Your task to perform on an android device: turn pop-ups on in chrome Image 0: 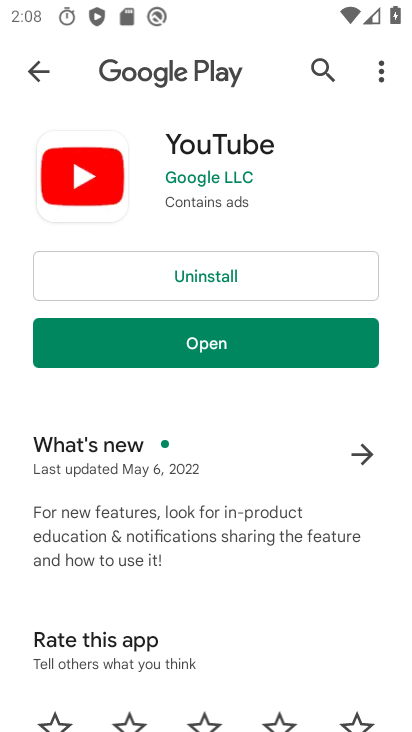
Step 0: press home button
Your task to perform on an android device: turn pop-ups on in chrome Image 1: 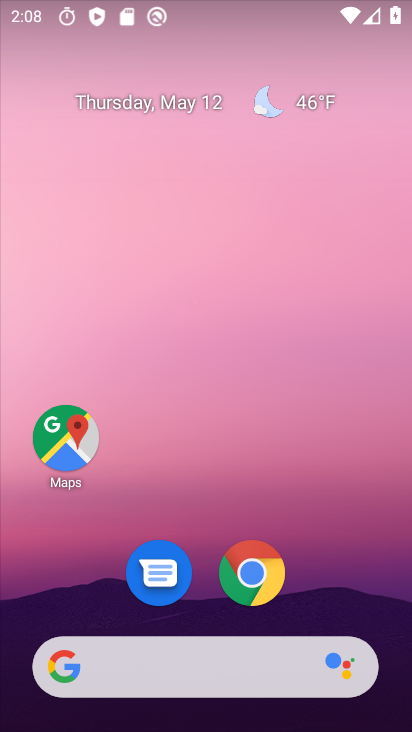
Step 1: click (256, 577)
Your task to perform on an android device: turn pop-ups on in chrome Image 2: 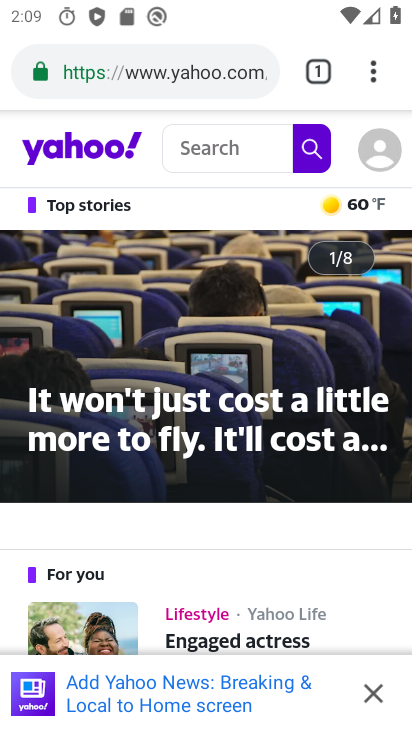
Step 2: click (386, 84)
Your task to perform on an android device: turn pop-ups on in chrome Image 3: 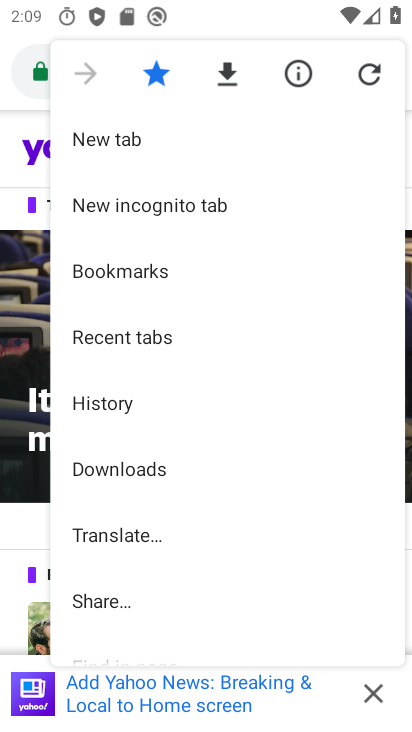
Step 3: drag from (240, 567) to (293, 270)
Your task to perform on an android device: turn pop-ups on in chrome Image 4: 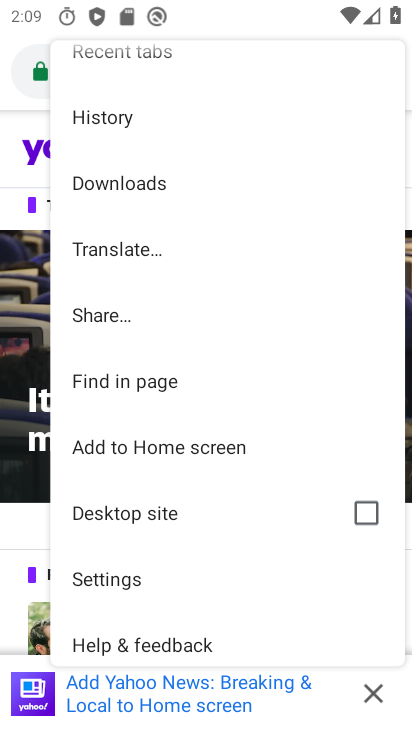
Step 4: click (186, 574)
Your task to perform on an android device: turn pop-ups on in chrome Image 5: 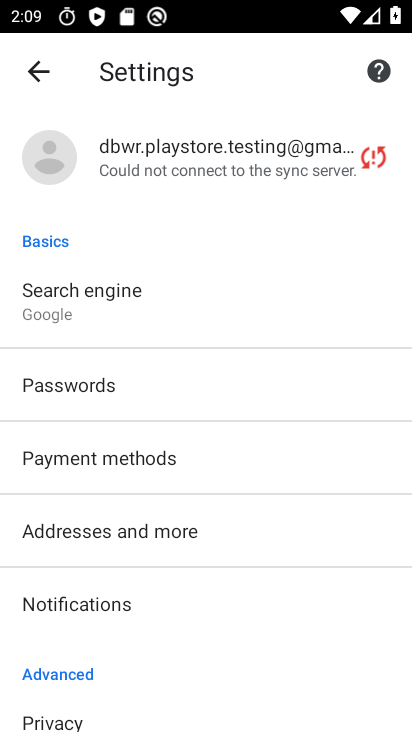
Step 5: drag from (133, 671) to (206, 296)
Your task to perform on an android device: turn pop-ups on in chrome Image 6: 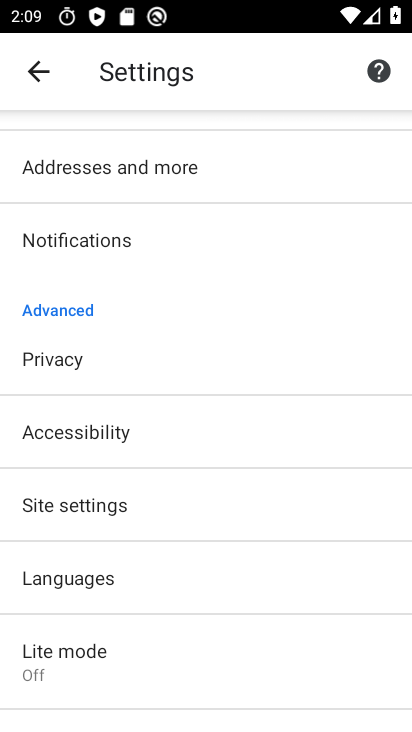
Step 6: drag from (160, 594) to (197, 329)
Your task to perform on an android device: turn pop-ups on in chrome Image 7: 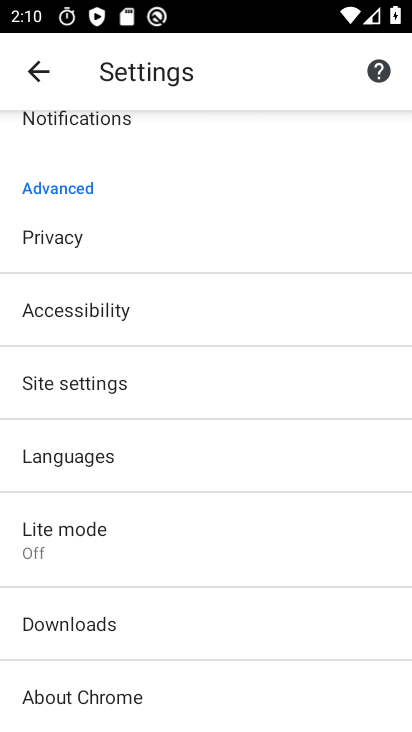
Step 7: drag from (252, 670) to (283, 141)
Your task to perform on an android device: turn pop-ups on in chrome Image 8: 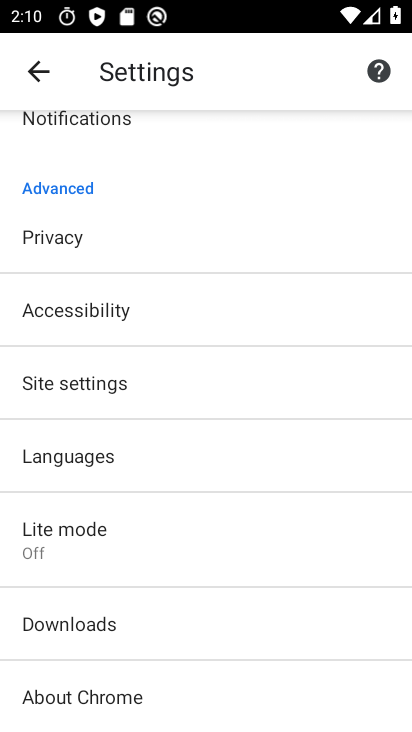
Step 8: drag from (160, 249) to (166, 531)
Your task to perform on an android device: turn pop-ups on in chrome Image 9: 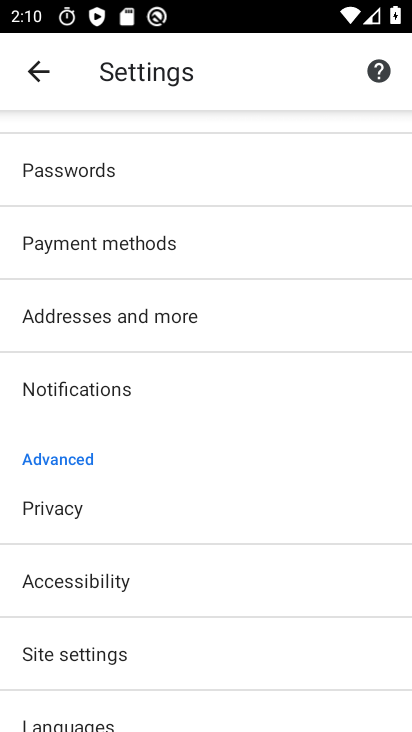
Step 9: click (88, 658)
Your task to perform on an android device: turn pop-ups on in chrome Image 10: 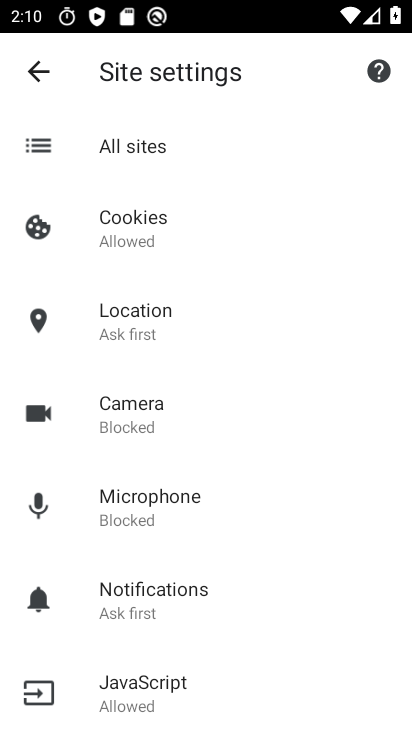
Step 10: drag from (205, 668) to (241, 269)
Your task to perform on an android device: turn pop-ups on in chrome Image 11: 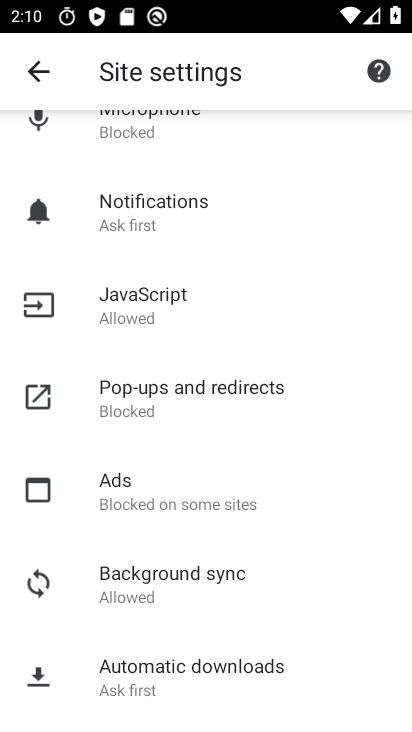
Step 11: click (168, 398)
Your task to perform on an android device: turn pop-ups on in chrome Image 12: 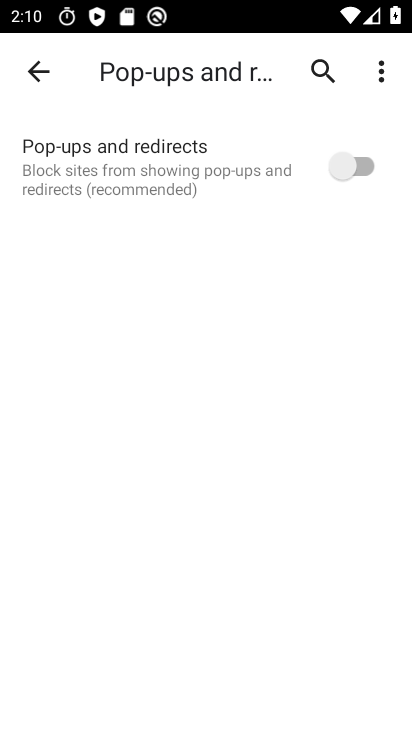
Step 12: click (385, 159)
Your task to perform on an android device: turn pop-ups on in chrome Image 13: 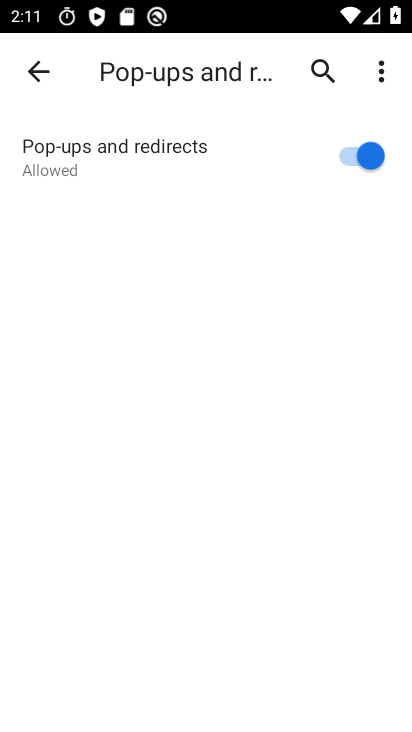
Step 13: click (385, 159)
Your task to perform on an android device: turn pop-ups on in chrome Image 14: 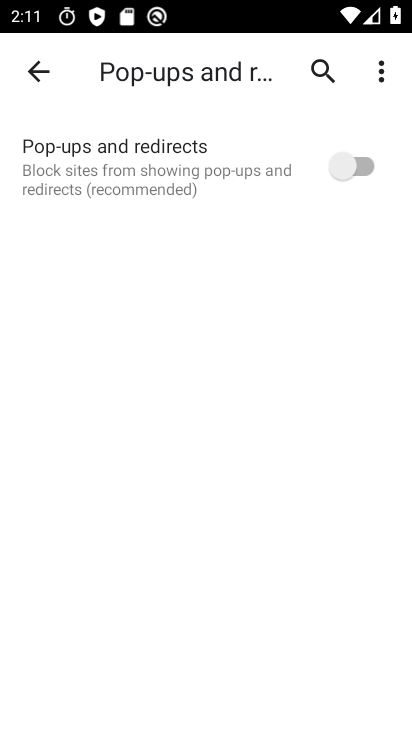
Step 14: click (385, 159)
Your task to perform on an android device: turn pop-ups on in chrome Image 15: 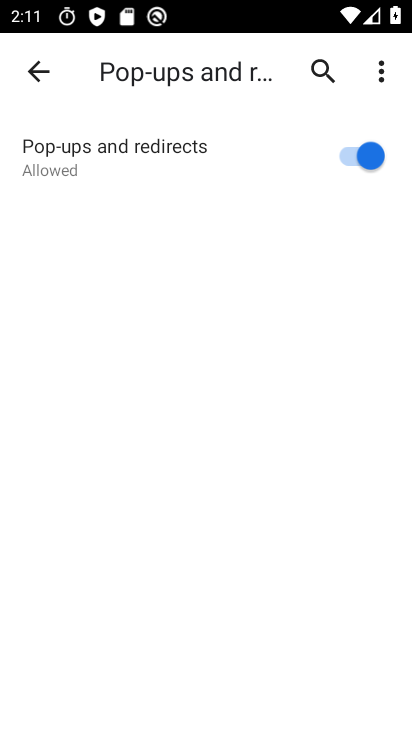
Step 15: task complete